Your task to perform on an android device: turn off picture-in-picture Image 0: 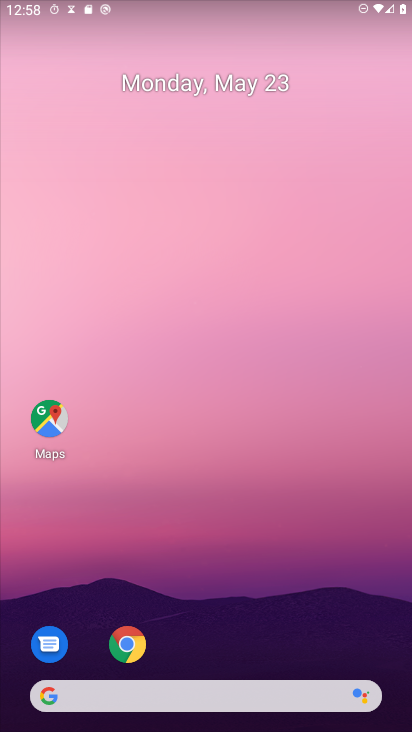
Step 0: drag from (277, 654) to (373, 4)
Your task to perform on an android device: turn off picture-in-picture Image 1: 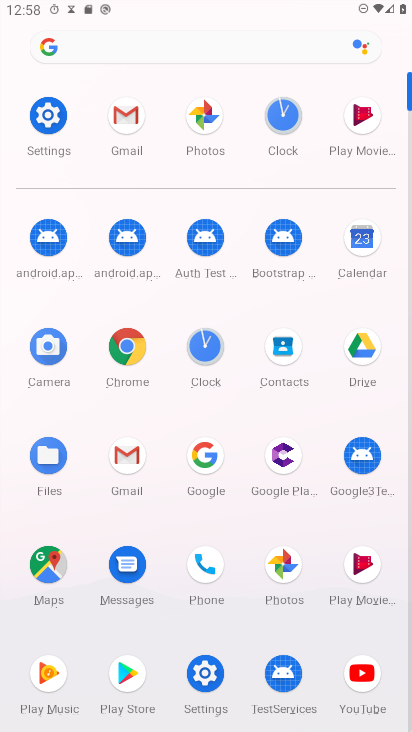
Step 1: click (52, 121)
Your task to perform on an android device: turn off picture-in-picture Image 2: 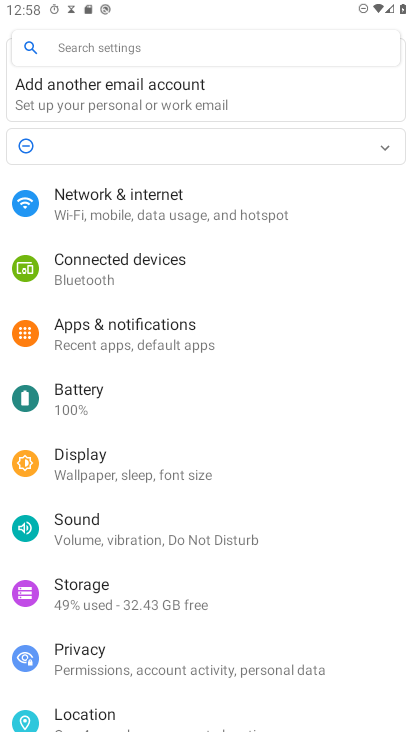
Step 2: click (144, 330)
Your task to perform on an android device: turn off picture-in-picture Image 3: 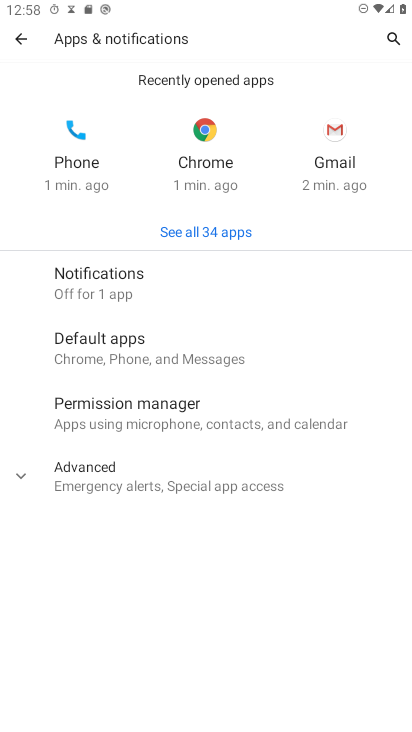
Step 3: click (131, 466)
Your task to perform on an android device: turn off picture-in-picture Image 4: 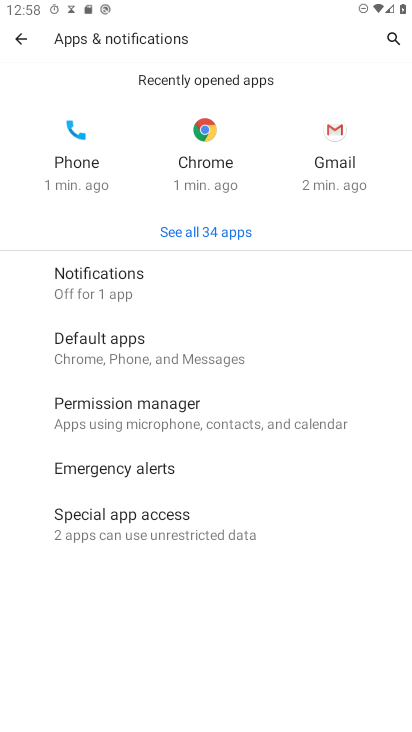
Step 4: click (128, 525)
Your task to perform on an android device: turn off picture-in-picture Image 5: 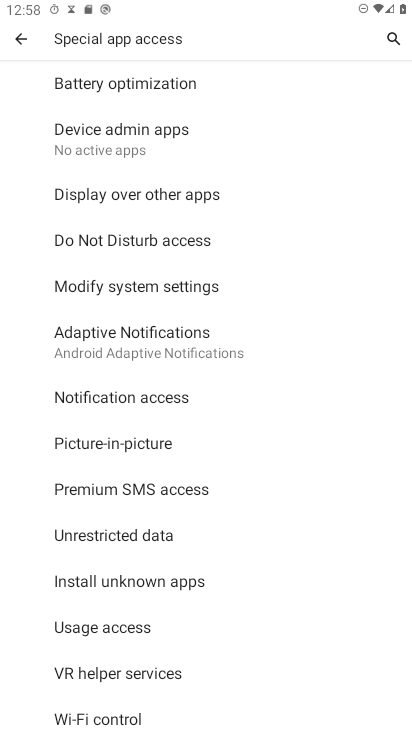
Step 5: click (143, 444)
Your task to perform on an android device: turn off picture-in-picture Image 6: 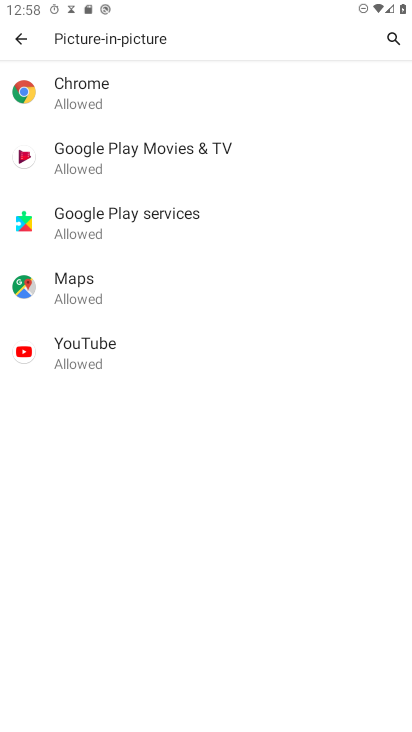
Step 6: click (95, 85)
Your task to perform on an android device: turn off picture-in-picture Image 7: 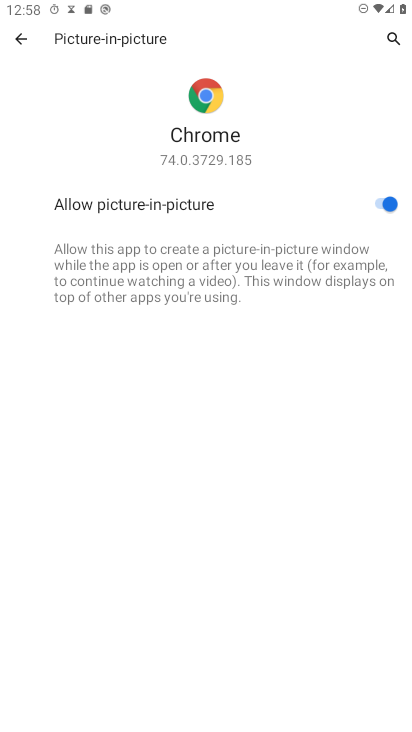
Step 7: click (381, 202)
Your task to perform on an android device: turn off picture-in-picture Image 8: 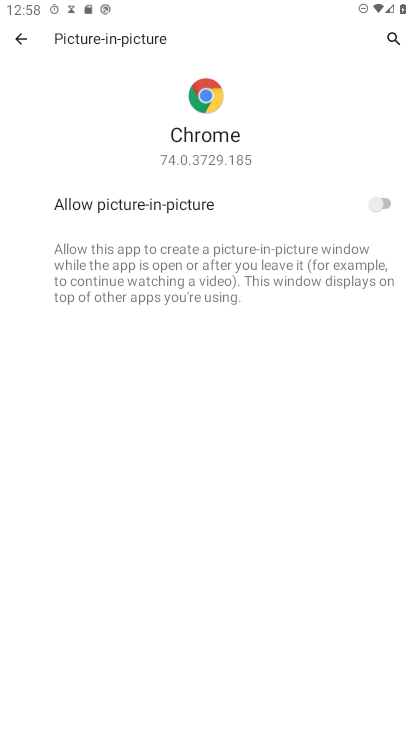
Step 8: click (20, 33)
Your task to perform on an android device: turn off picture-in-picture Image 9: 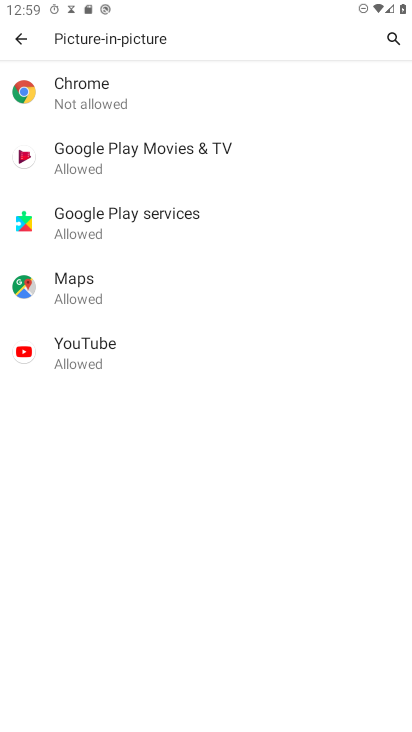
Step 9: click (82, 152)
Your task to perform on an android device: turn off picture-in-picture Image 10: 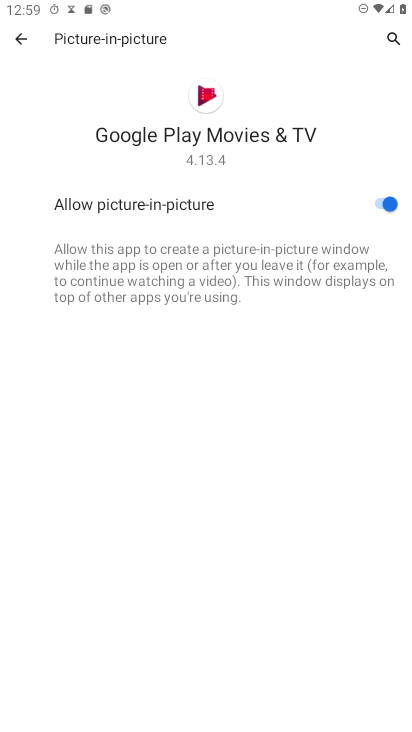
Step 10: click (378, 207)
Your task to perform on an android device: turn off picture-in-picture Image 11: 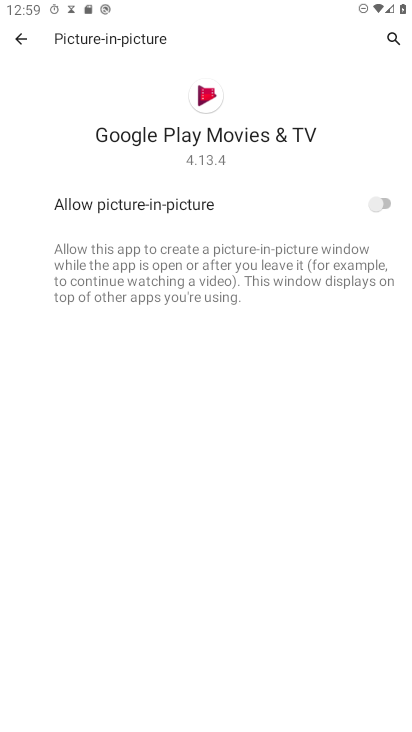
Step 11: click (11, 36)
Your task to perform on an android device: turn off picture-in-picture Image 12: 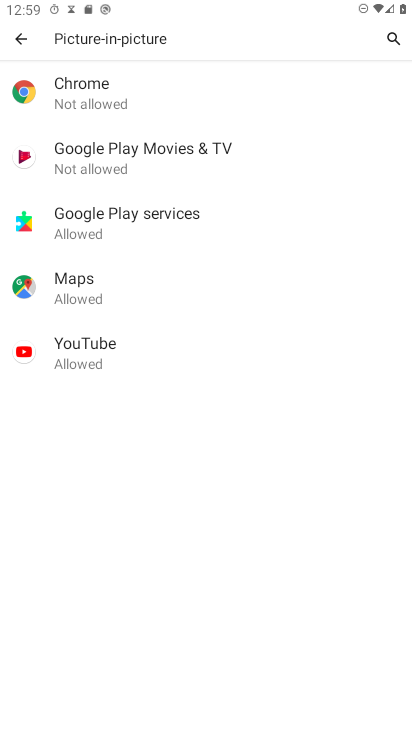
Step 12: click (156, 217)
Your task to perform on an android device: turn off picture-in-picture Image 13: 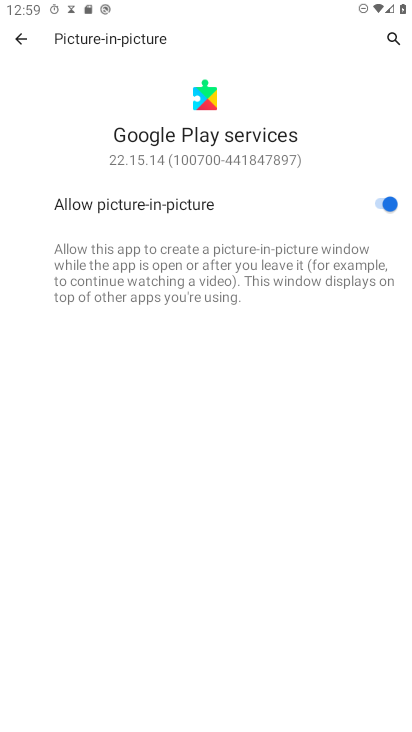
Step 13: click (379, 202)
Your task to perform on an android device: turn off picture-in-picture Image 14: 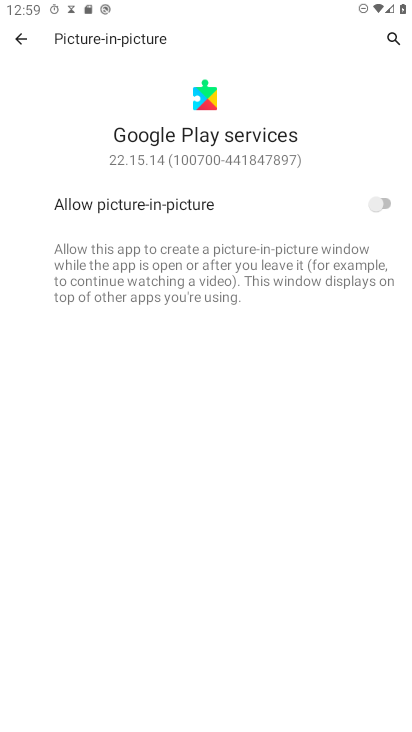
Step 14: click (18, 35)
Your task to perform on an android device: turn off picture-in-picture Image 15: 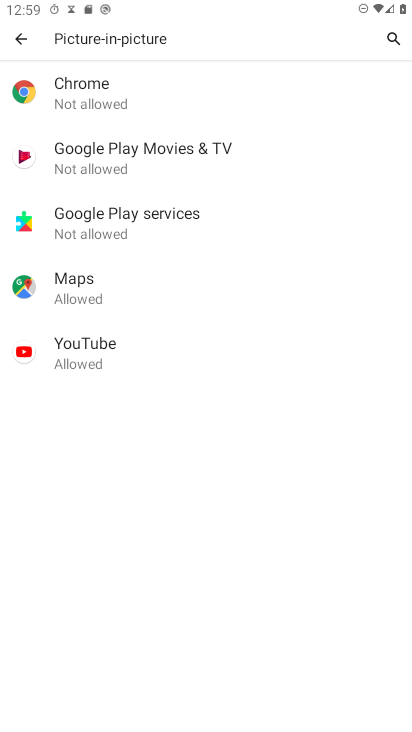
Step 15: click (97, 282)
Your task to perform on an android device: turn off picture-in-picture Image 16: 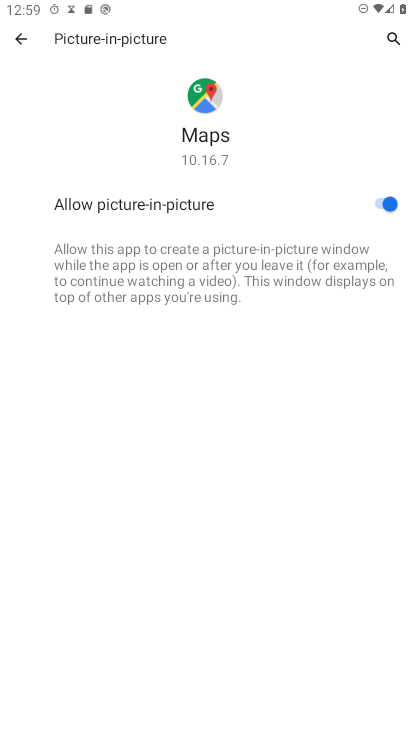
Step 16: click (380, 202)
Your task to perform on an android device: turn off picture-in-picture Image 17: 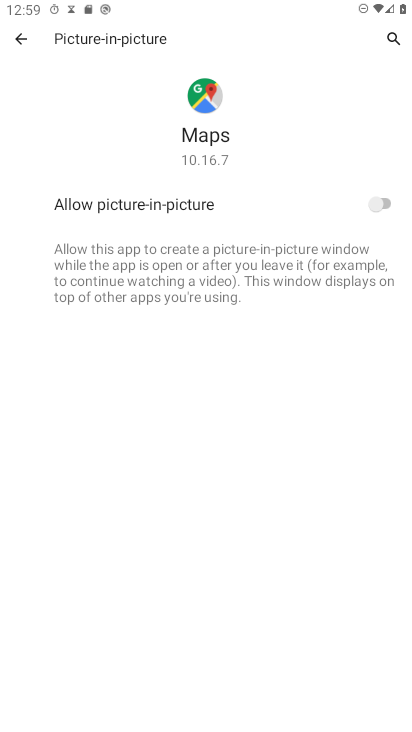
Step 17: click (24, 39)
Your task to perform on an android device: turn off picture-in-picture Image 18: 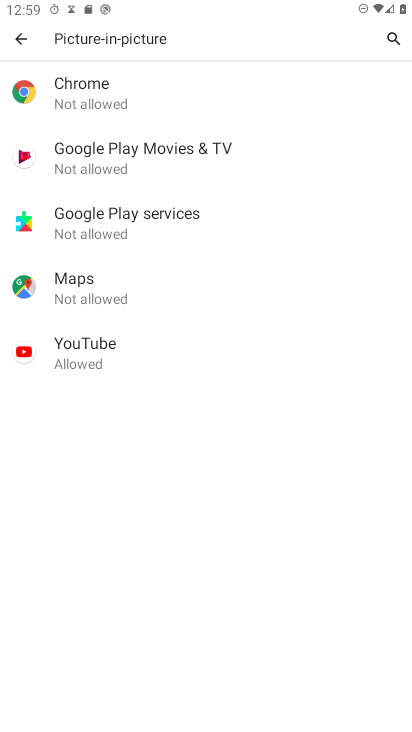
Step 18: click (73, 361)
Your task to perform on an android device: turn off picture-in-picture Image 19: 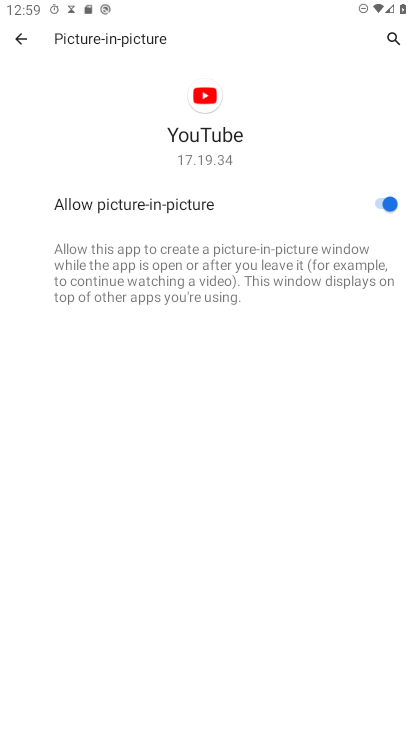
Step 19: click (386, 198)
Your task to perform on an android device: turn off picture-in-picture Image 20: 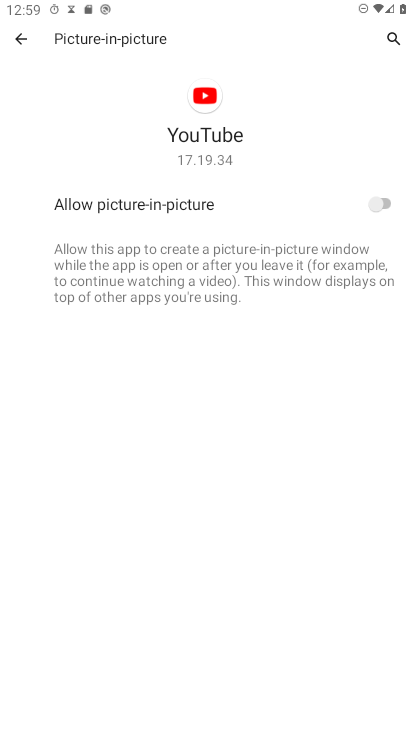
Step 20: click (20, 33)
Your task to perform on an android device: turn off picture-in-picture Image 21: 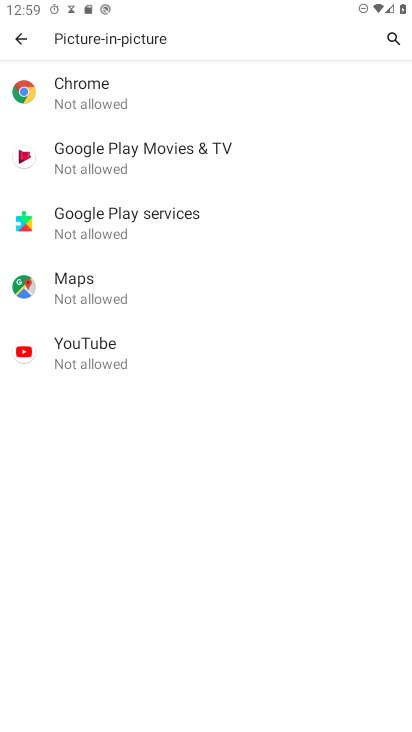
Step 21: task complete